Your task to perform on an android device: check battery use Image 0: 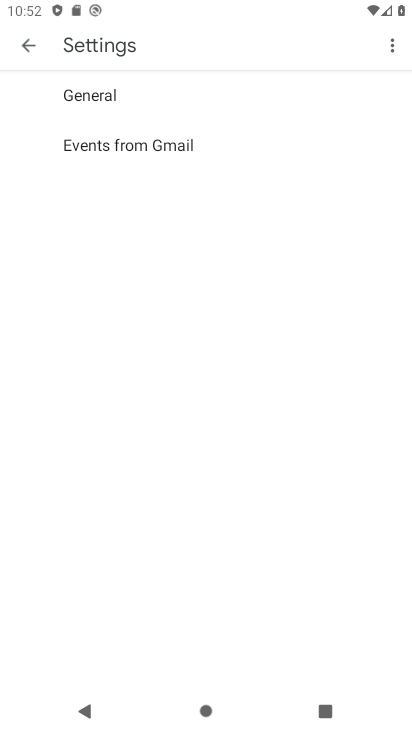
Step 0: press home button
Your task to perform on an android device: check battery use Image 1: 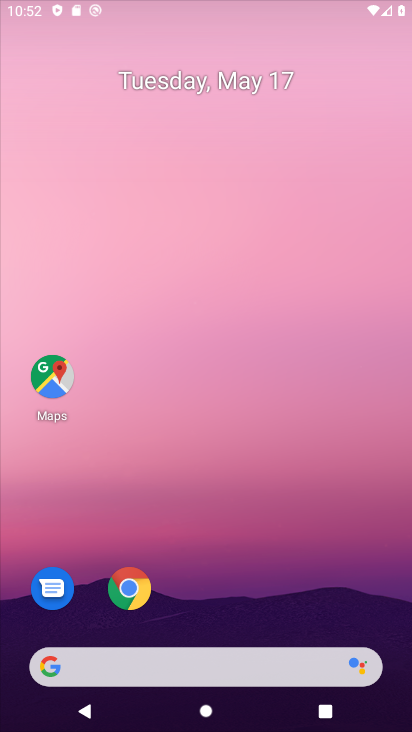
Step 1: drag from (238, 562) to (232, 110)
Your task to perform on an android device: check battery use Image 2: 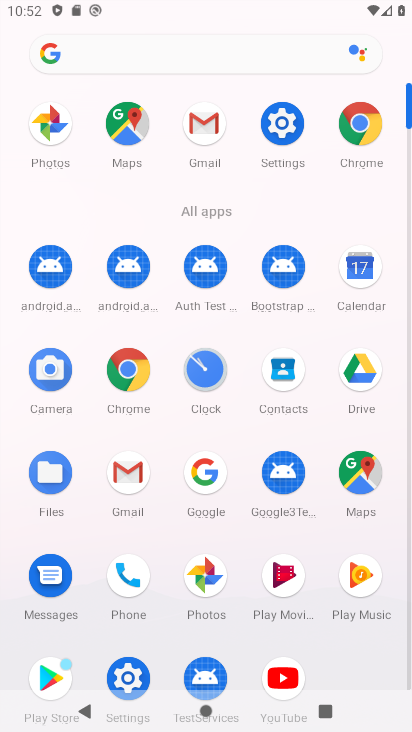
Step 2: click (302, 118)
Your task to perform on an android device: check battery use Image 3: 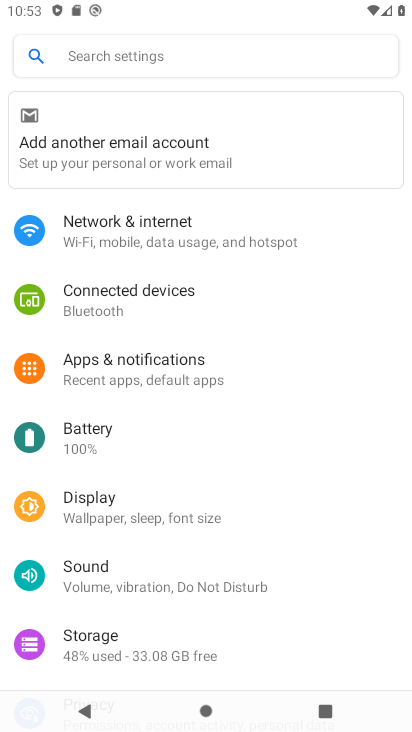
Step 3: click (105, 448)
Your task to perform on an android device: check battery use Image 4: 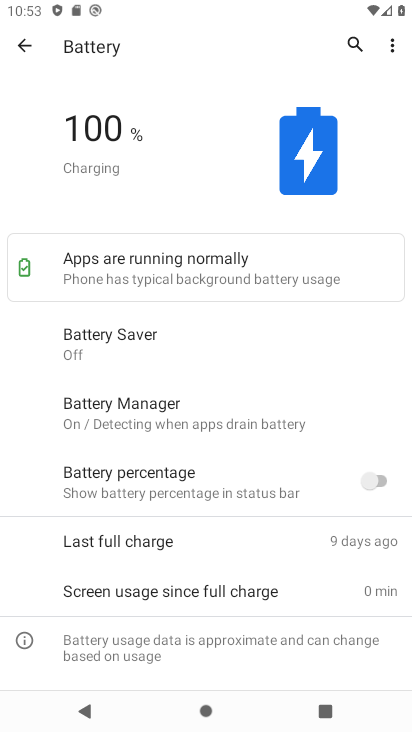
Step 4: task complete